Your task to perform on an android device: search for starred emails in the gmail app Image 0: 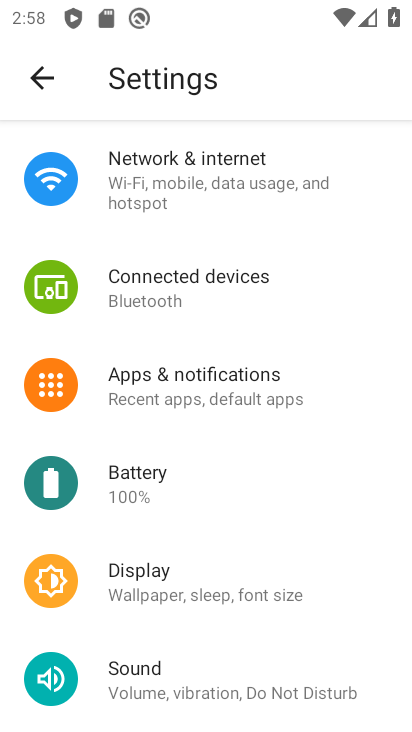
Step 0: press home button
Your task to perform on an android device: search for starred emails in the gmail app Image 1: 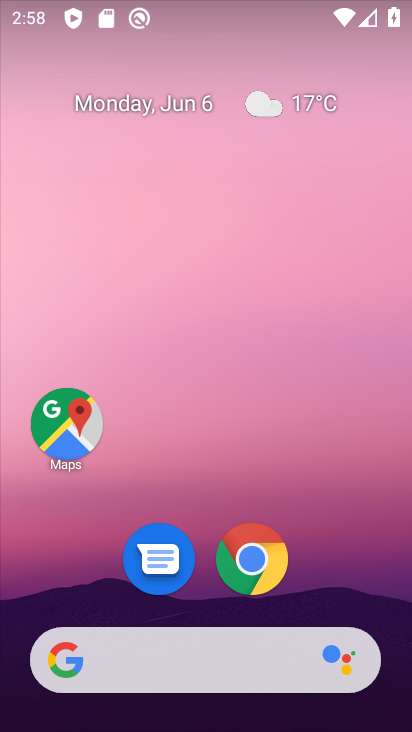
Step 1: drag from (356, 575) to (239, 112)
Your task to perform on an android device: search for starred emails in the gmail app Image 2: 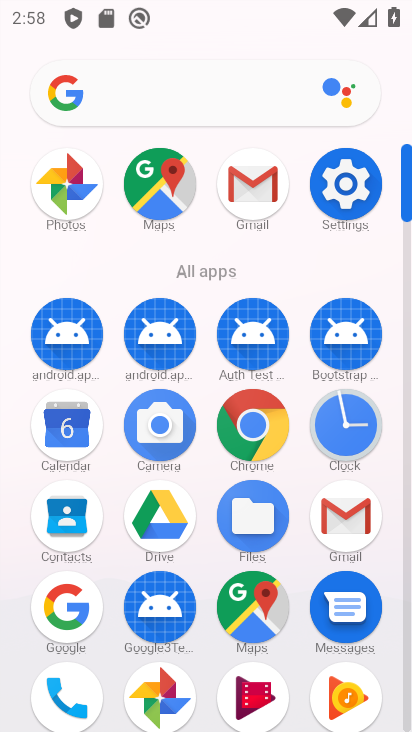
Step 2: click (264, 193)
Your task to perform on an android device: search for starred emails in the gmail app Image 3: 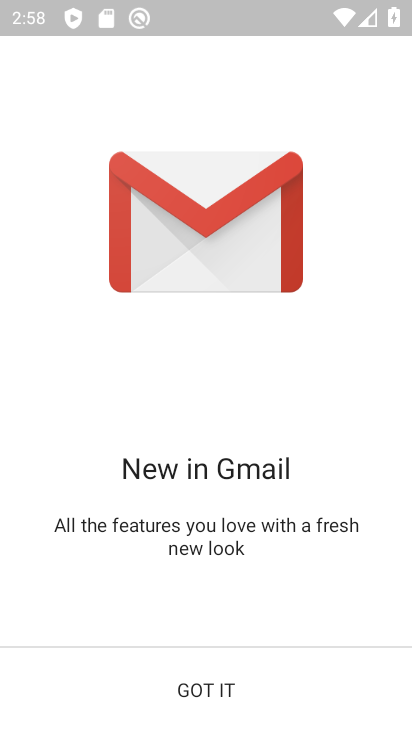
Step 3: click (208, 695)
Your task to perform on an android device: search for starred emails in the gmail app Image 4: 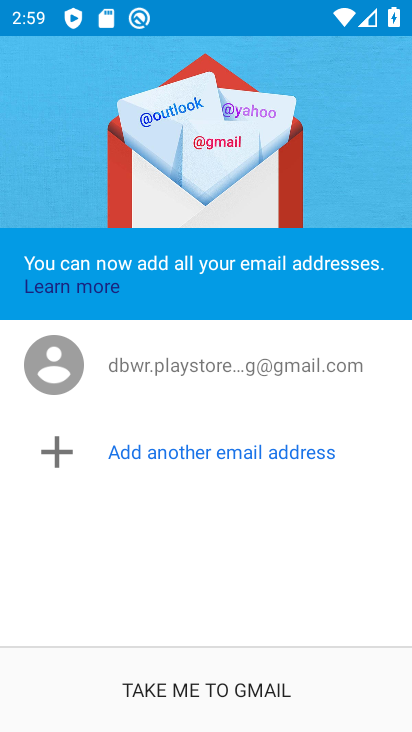
Step 4: click (208, 695)
Your task to perform on an android device: search for starred emails in the gmail app Image 5: 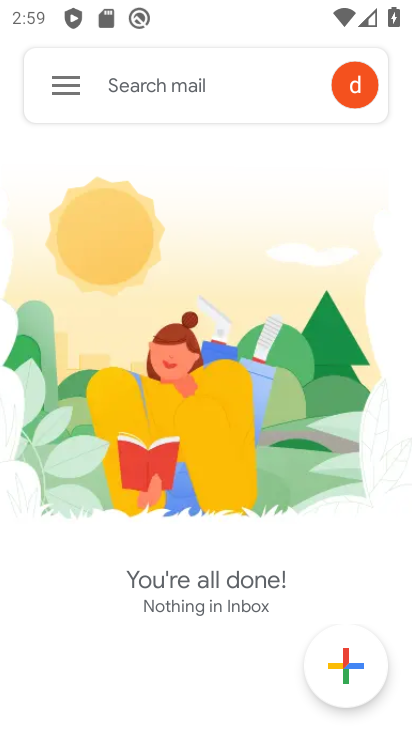
Step 5: click (64, 86)
Your task to perform on an android device: search for starred emails in the gmail app Image 6: 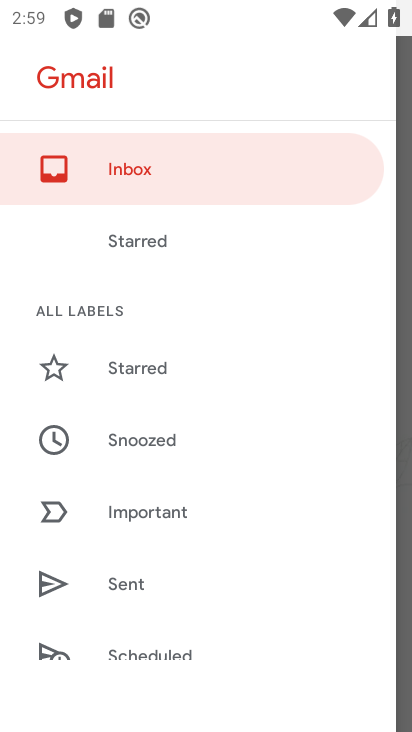
Step 6: click (161, 369)
Your task to perform on an android device: search for starred emails in the gmail app Image 7: 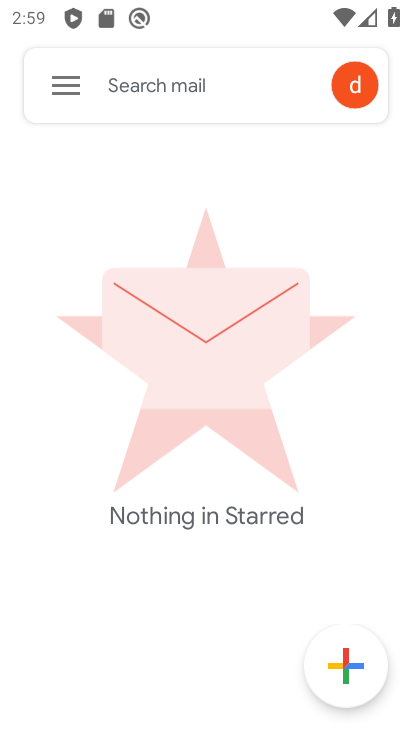
Step 7: task complete